Your task to perform on an android device: Go to internet settings Image 0: 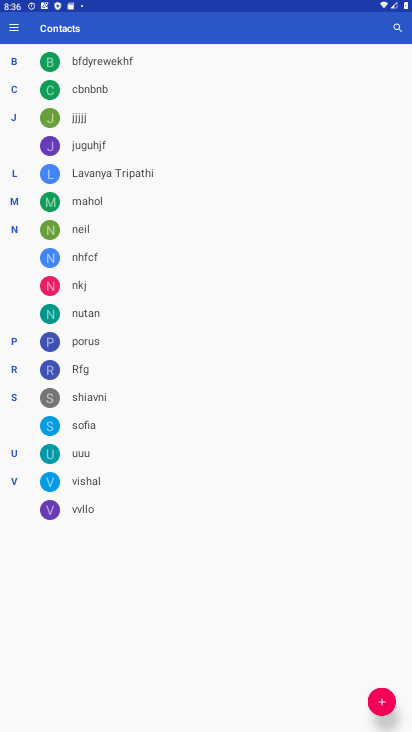
Step 0: press home button
Your task to perform on an android device: Go to internet settings Image 1: 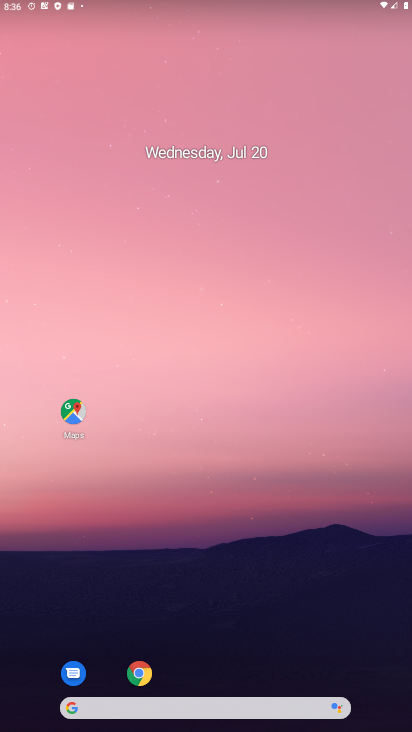
Step 1: drag from (357, 663) to (126, 49)
Your task to perform on an android device: Go to internet settings Image 2: 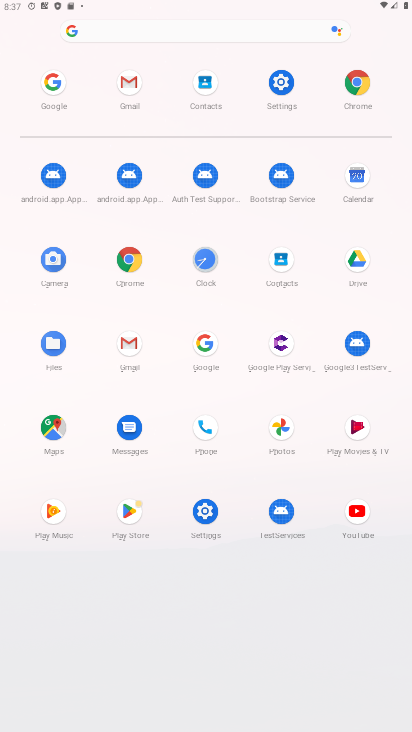
Step 2: click (199, 523)
Your task to perform on an android device: Go to internet settings Image 3: 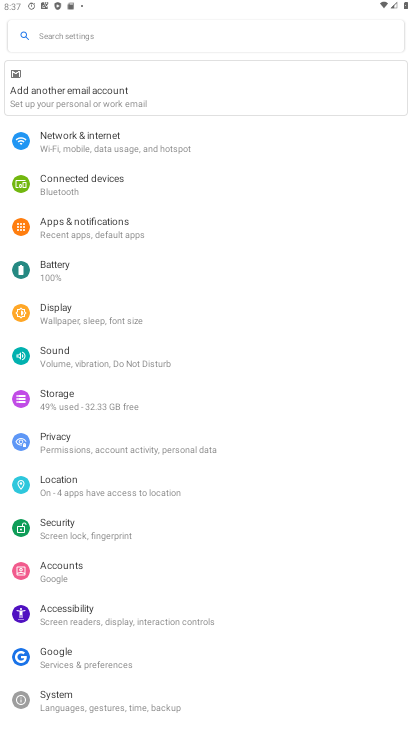
Step 3: click (82, 147)
Your task to perform on an android device: Go to internet settings Image 4: 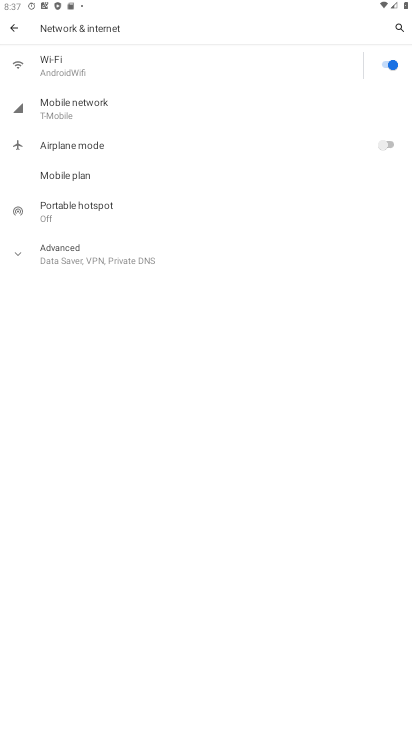
Step 4: task complete